Your task to perform on an android device: Open Youtube and go to the subscriptions tab Image 0: 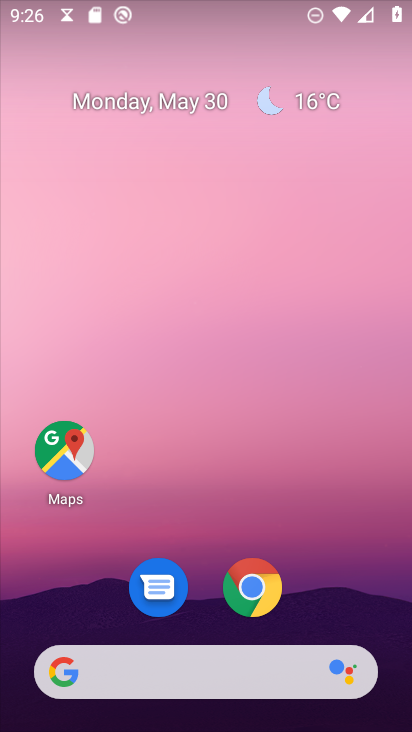
Step 0: drag from (178, 670) to (311, 187)
Your task to perform on an android device: Open Youtube and go to the subscriptions tab Image 1: 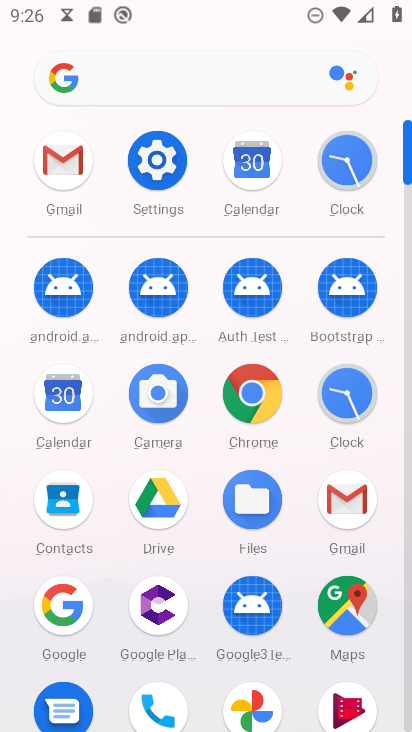
Step 1: drag from (212, 676) to (354, 211)
Your task to perform on an android device: Open Youtube and go to the subscriptions tab Image 2: 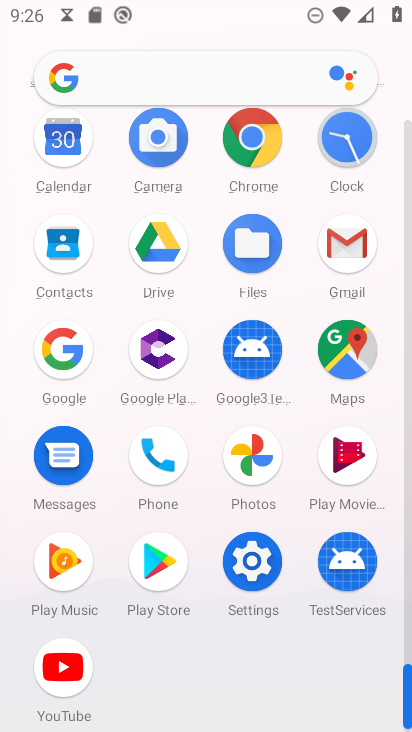
Step 2: click (68, 669)
Your task to perform on an android device: Open Youtube and go to the subscriptions tab Image 3: 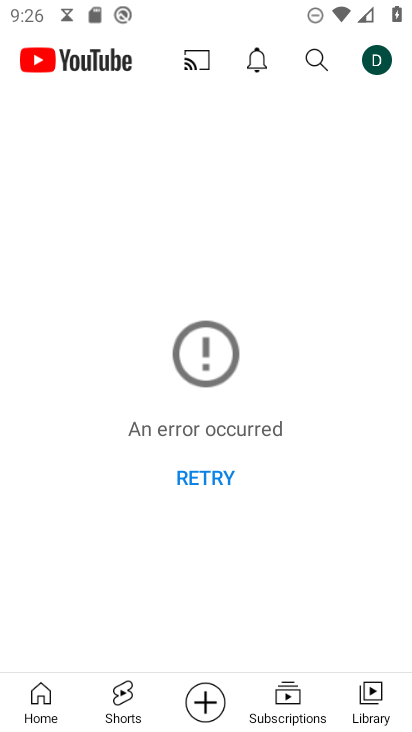
Step 3: click (209, 468)
Your task to perform on an android device: Open Youtube and go to the subscriptions tab Image 4: 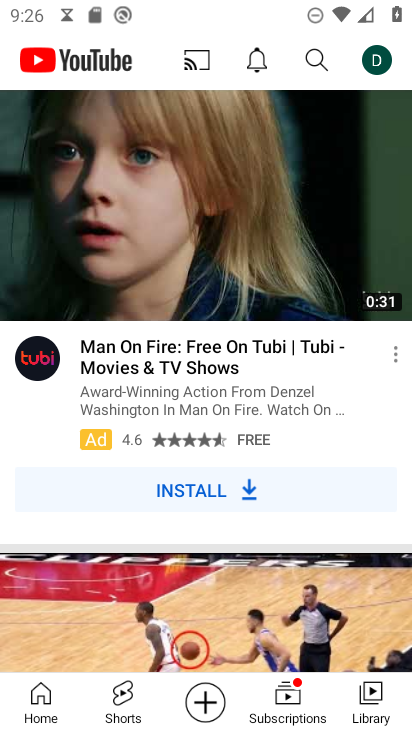
Step 4: click (286, 710)
Your task to perform on an android device: Open Youtube and go to the subscriptions tab Image 5: 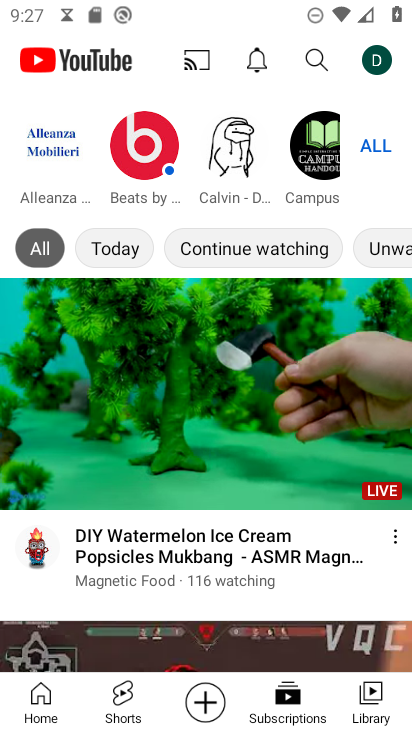
Step 5: task complete